Your task to perform on an android device: toggle improve location accuracy Image 0: 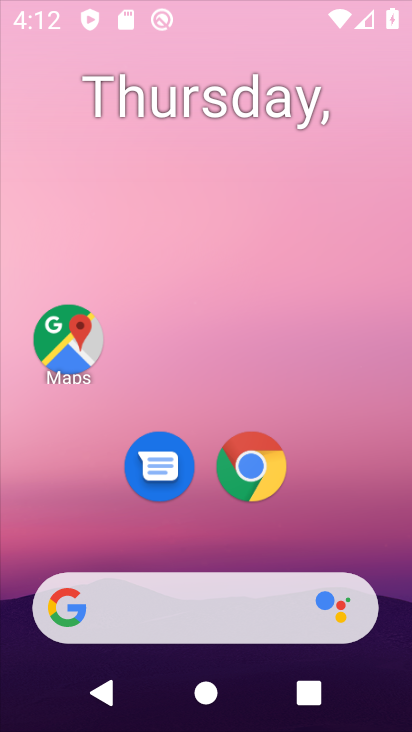
Step 0: press home button
Your task to perform on an android device: toggle improve location accuracy Image 1: 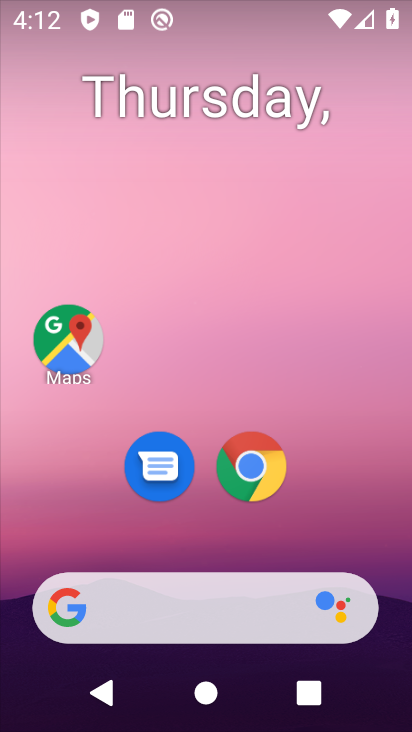
Step 1: click (68, 333)
Your task to perform on an android device: toggle improve location accuracy Image 2: 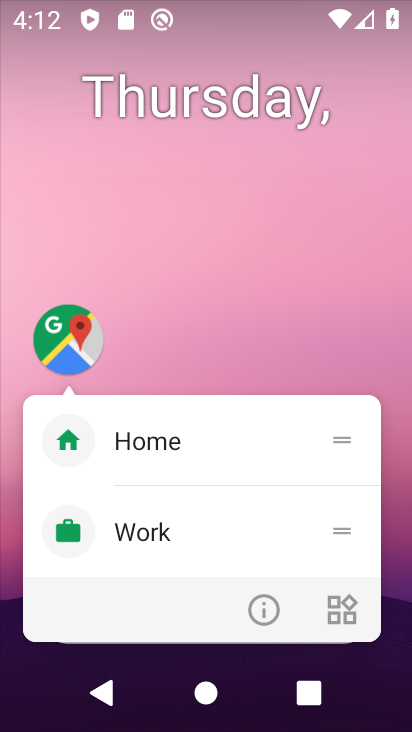
Step 2: click (272, 294)
Your task to perform on an android device: toggle improve location accuracy Image 3: 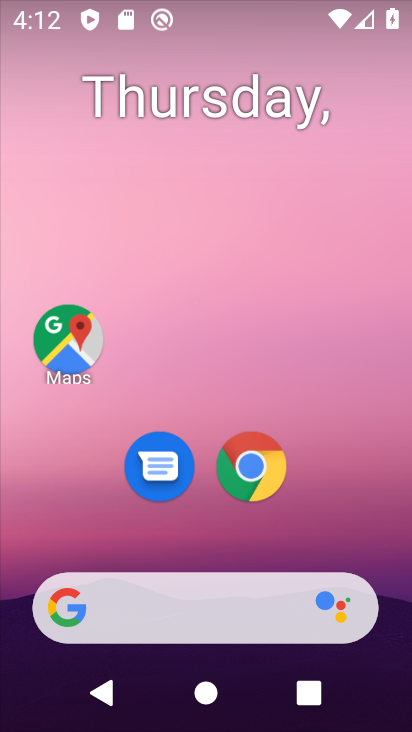
Step 3: drag from (210, 545) to (210, 63)
Your task to perform on an android device: toggle improve location accuracy Image 4: 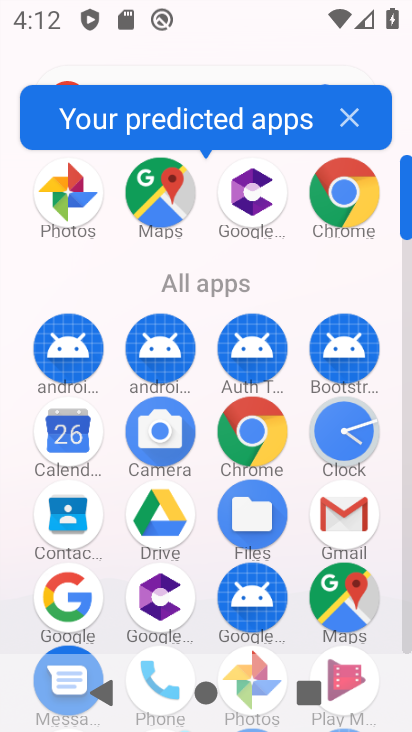
Step 4: drag from (202, 558) to (203, 128)
Your task to perform on an android device: toggle improve location accuracy Image 5: 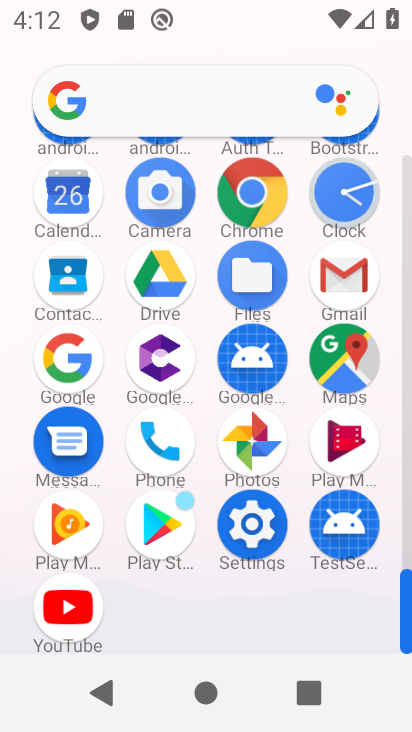
Step 5: click (248, 515)
Your task to perform on an android device: toggle improve location accuracy Image 6: 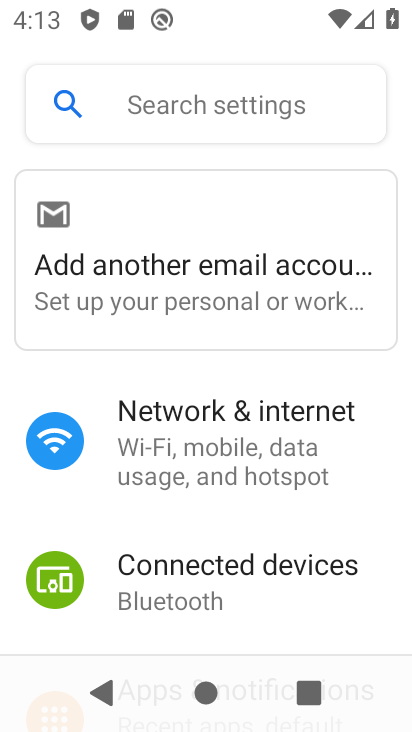
Step 6: drag from (241, 614) to (244, 81)
Your task to perform on an android device: toggle improve location accuracy Image 7: 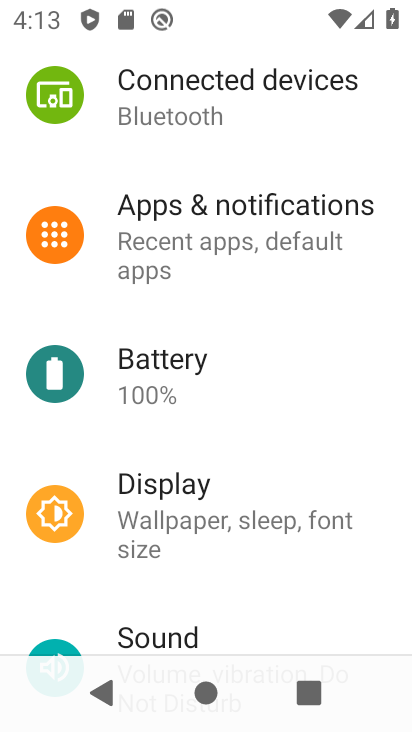
Step 7: drag from (247, 625) to (270, 61)
Your task to perform on an android device: toggle improve location accuracy Image 8: 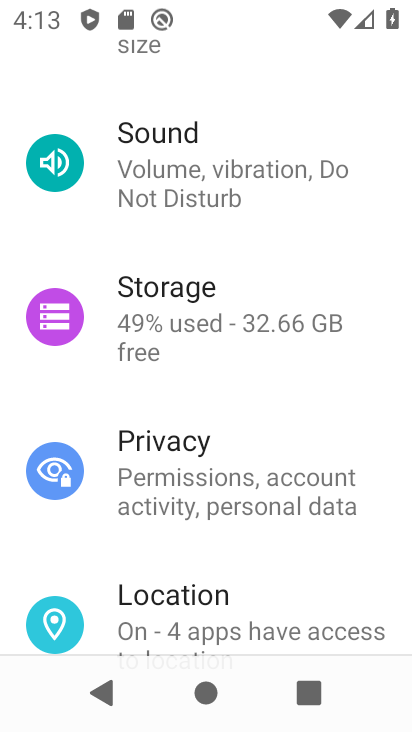
Step 8: click (246, 601)
Your task to perform on an android device: toggle improve location accuracy Image 9: 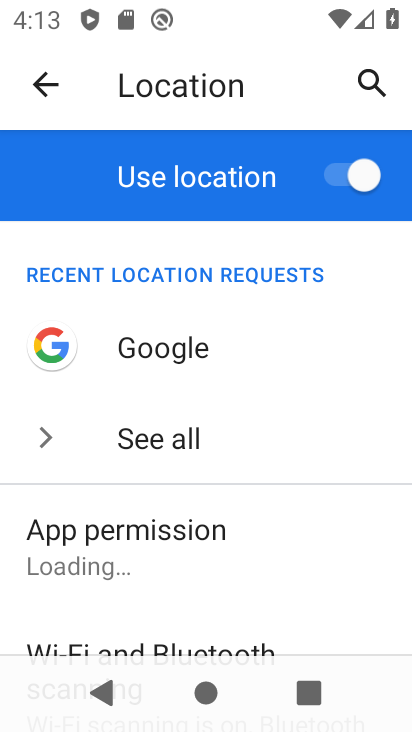
Step 9: drag from (266, 229) to (270, 173)
Your task to perform on an android device: toggle improve location accuracy Image 10: 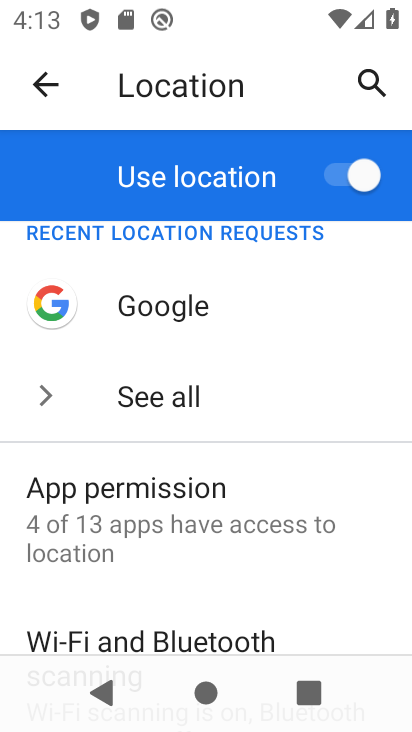
Step 10: drag from (226, 616) to (247, 166)
Your task to perform on an android device: toggle improve location accuracy Image 11: 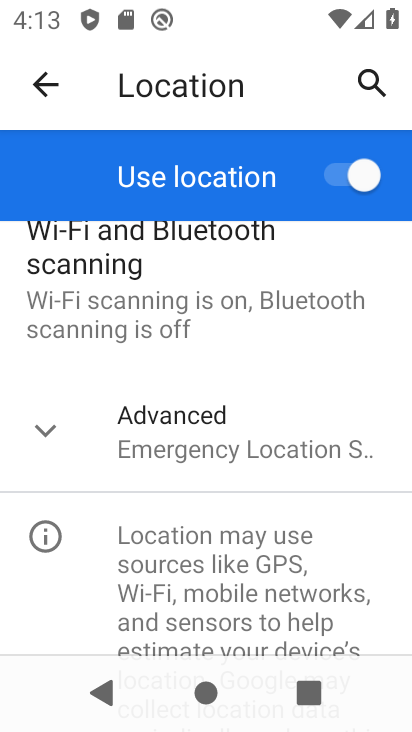
Step 11: click (50, 415)
Your task to perform on an android device: toggle improve location accuracy Image 12: 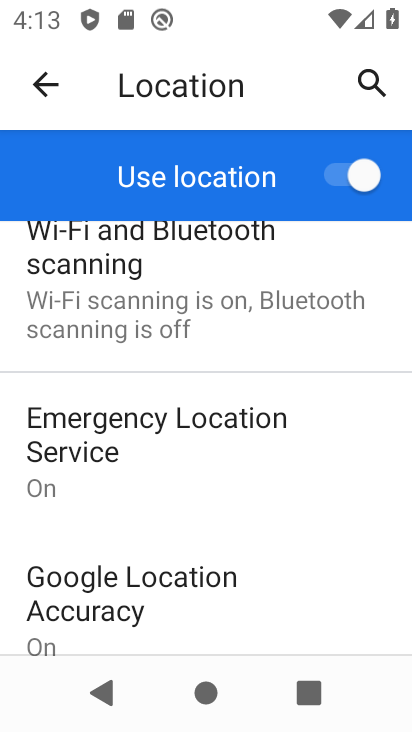
Step 12: click (163, 612)
Your task to perform on an android device: toggle improve location accuracy Image 13: 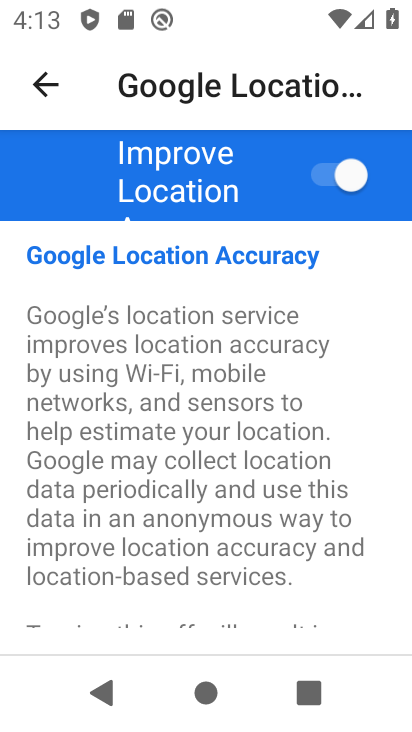
Step 13: click (195, 110)
Your task to perform on an android device: toggle improve location accuracy Image 14: 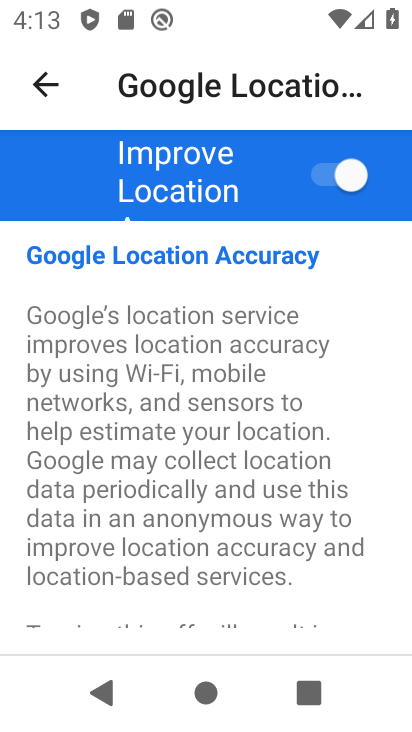
Step 14: drag from (209, 621) to (193, 208)
Your task to perform on an android device: toggle improve location accuracy Image 15: 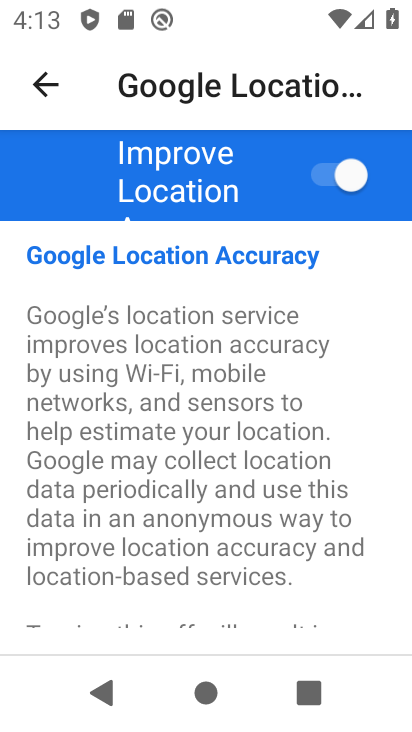
Step 15: click (325, 171)
Your task to perform on an android device: toggle improve location accuracy Image 16: 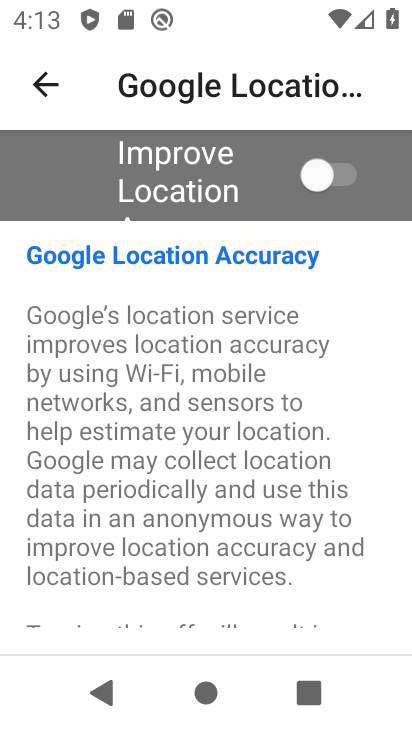
Step 16: task complete